Your task to perform on an android device: Is it going to rain today? Image 0: 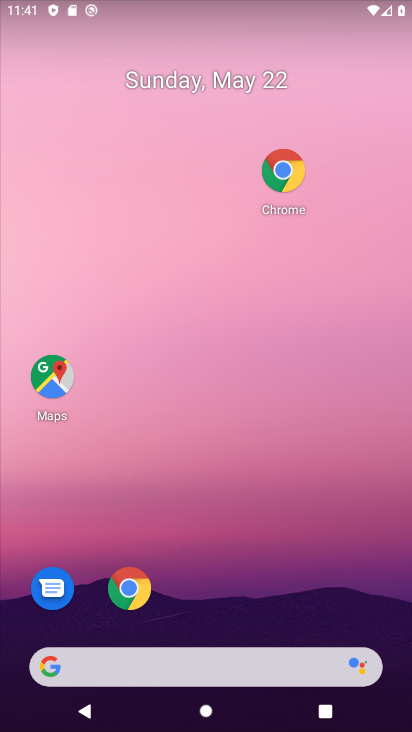
Step 0: drag from (209, 258) to (177, 24)
Your task to perform on an android device: Is it going to rain today? Image 1: 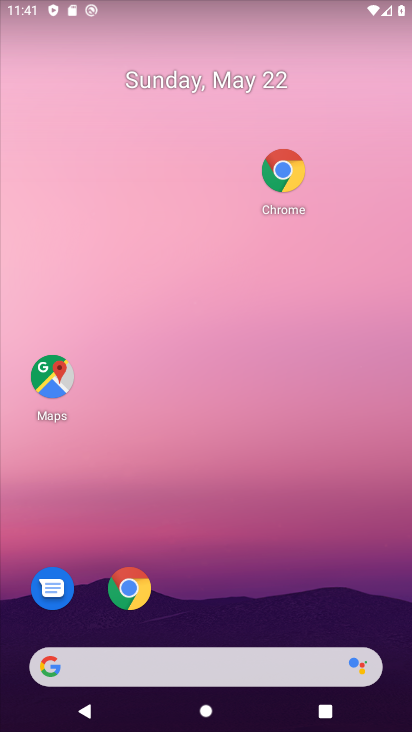
Step 1: drag from (202, 161) to (196, 25)
Your task to perform on an android device: Is it going to rain today? Image 2: 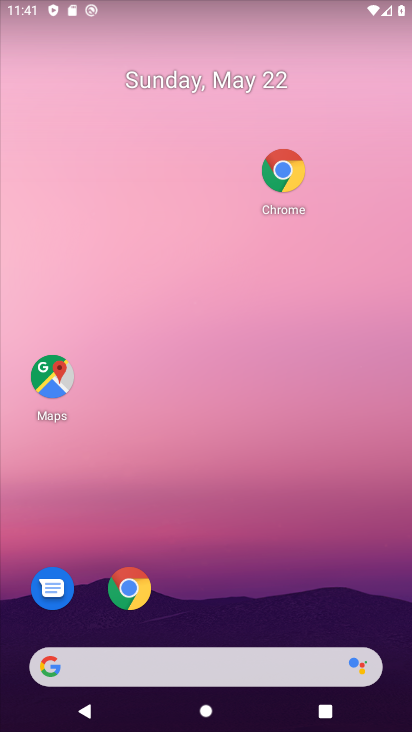
Step 2: drag from (231, 361) to (231, 118)
Your task to perform on an android device: Is it going to rain today? Image 3: 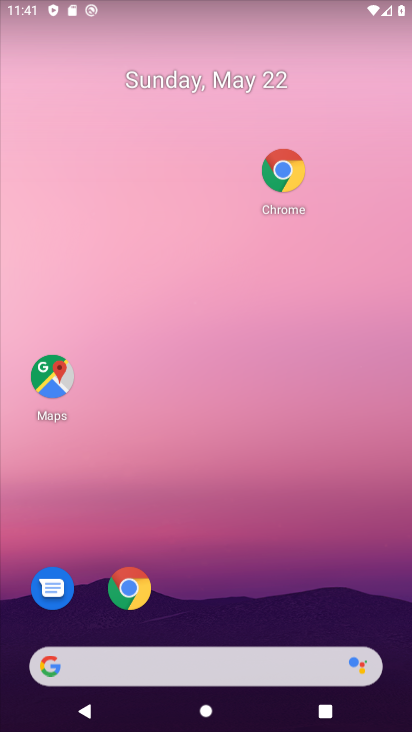
Step 3: drag from (291, 580) to (236, 656)
Your task to perform on an android device: Is it going to rain today? Image 4: 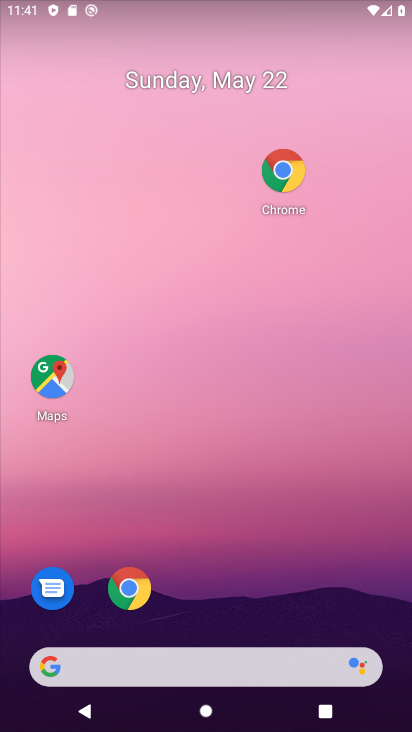
Step 4: drag from (286, 385) to (274, 2)
Your task to perform on an android device: Is it going to rain today? Image 5: 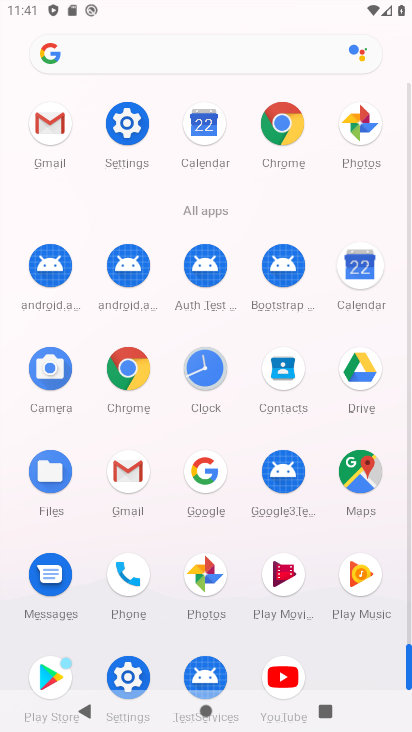
Step 5: press back button
Your task to perform on an android device: Is it going to rain today? Image 6: 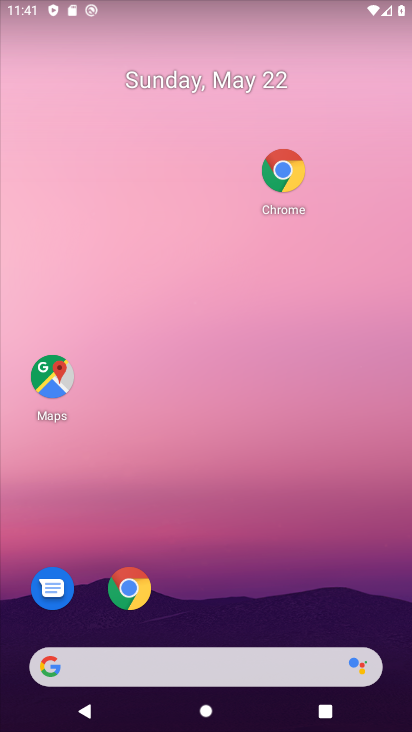
Step 6: drag from (16, 151) to (411, 514)
Your task to perform on an android device: Is it going to rain today? Image 7: 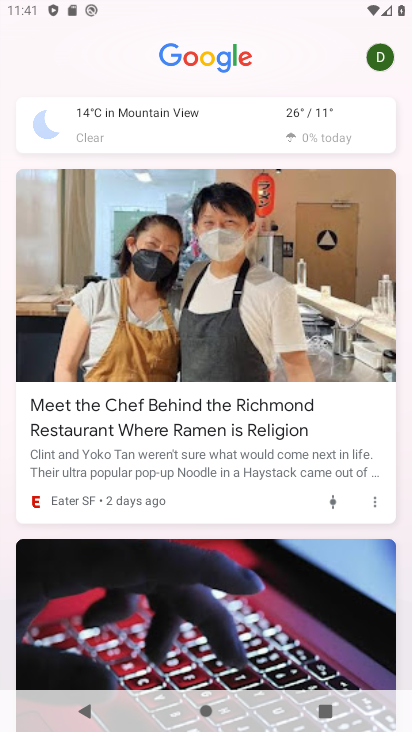
Step 7: click (165, 123)
Your task to perform on an android device: Is it going to rain today? Image 8: 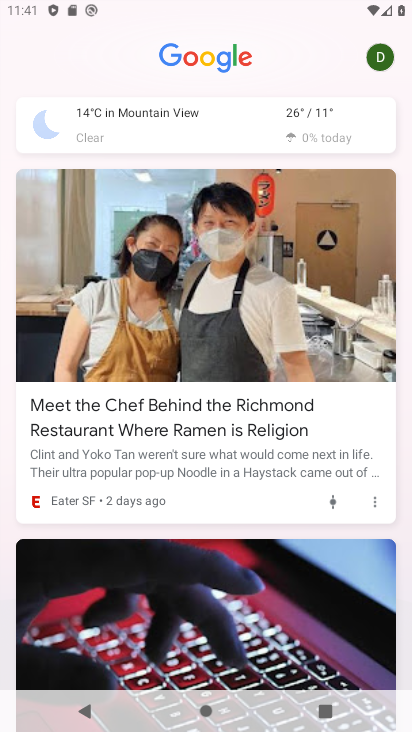
Step 8: click (166, 123)
Your task to perform on an android device: Is it going to rain today? Image 9: 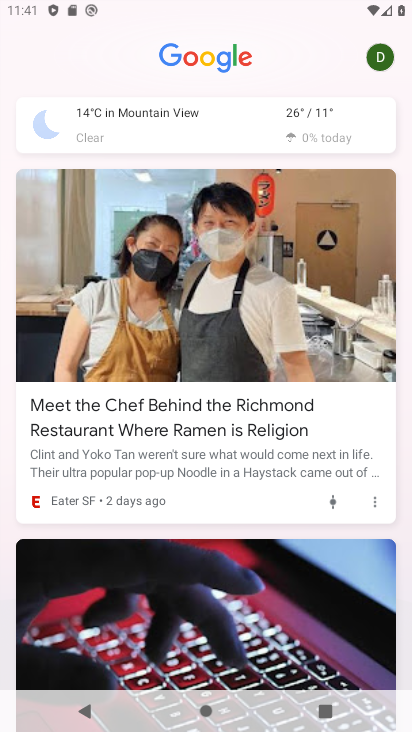
Step 9: click (167, 123)
Your task to perform on an android device: Is it going to rain today? Image 10: 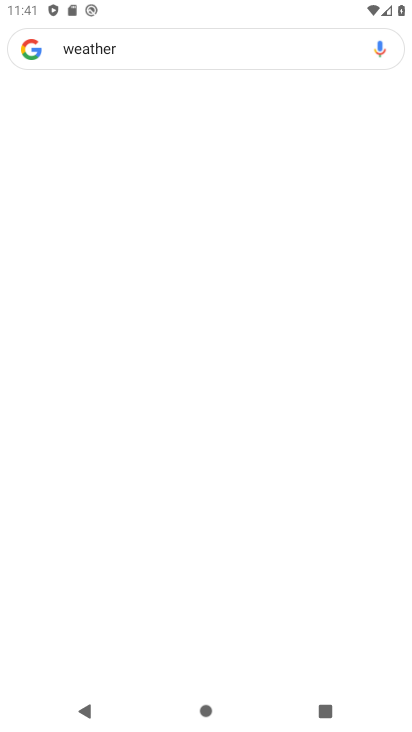
Step 10: click (169, 124)
Your task to perform on an android device: Is it going to rain today? Image 11: 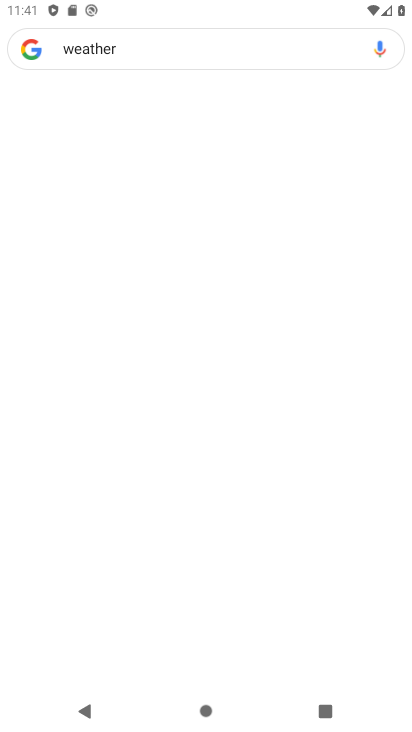
Step 11: click (169, 124)
Your task to perform on an android device: Is it going to rain today? Image 12: 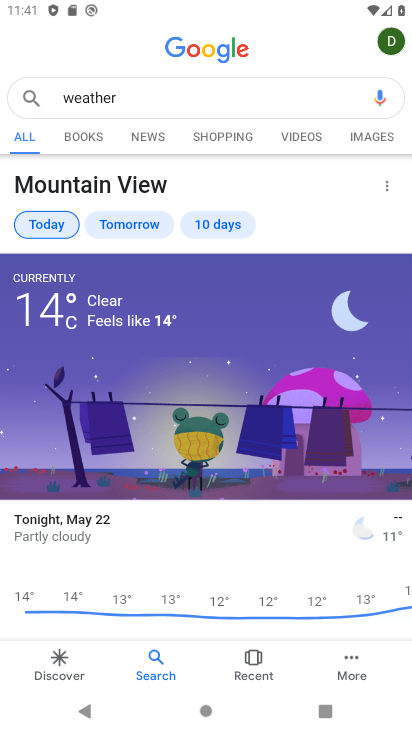
Step 12: click (147, 96)
Your task to perform on an android device: Is it going to rain today? Image 13: 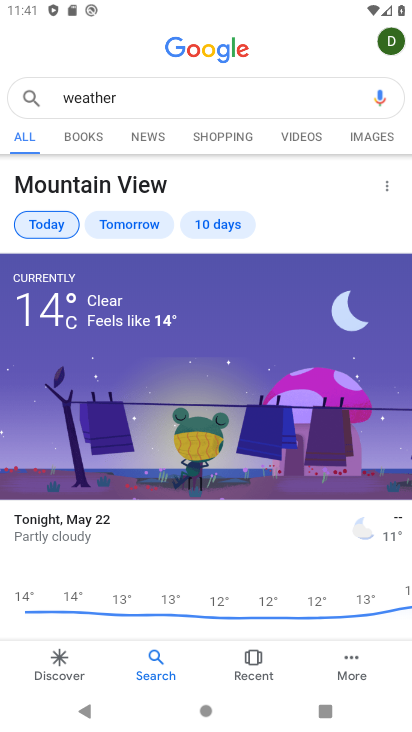
Step 13: click (147, 96)
Your task to perform on an android device: Is it going to rain today? Image 14: 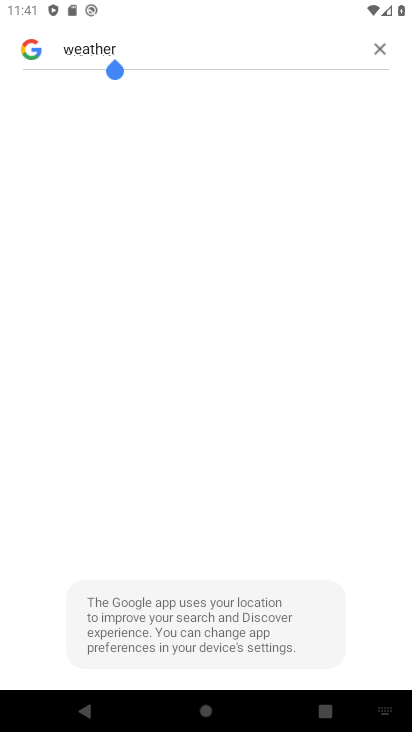
Step 14: click (151, 101)
Your task to perform on an android device: Is it going to rain today? Image 15: 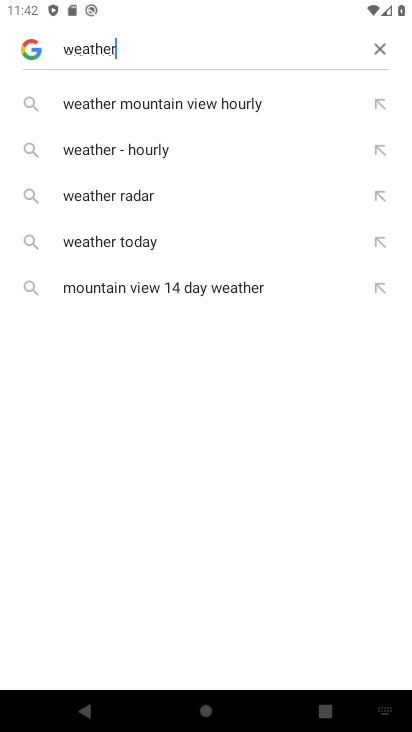
Step 15: click (169, 104)
Your task to perform on an android device: Is it going to rain today? Image 16: 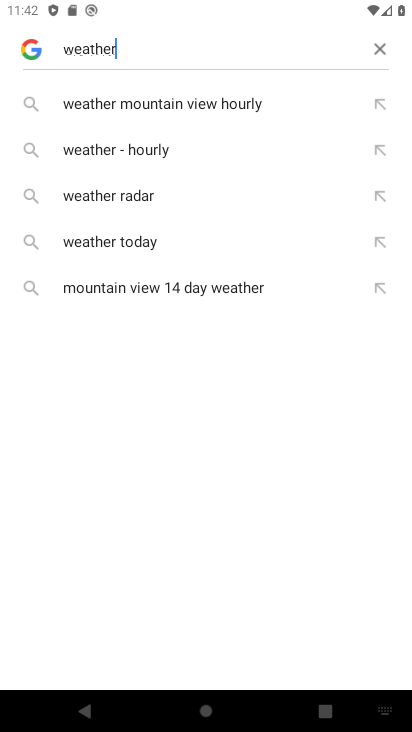
Step 16: click (181, 94)
Your task to perform on an android device: Is it going to rain today? Image 17: 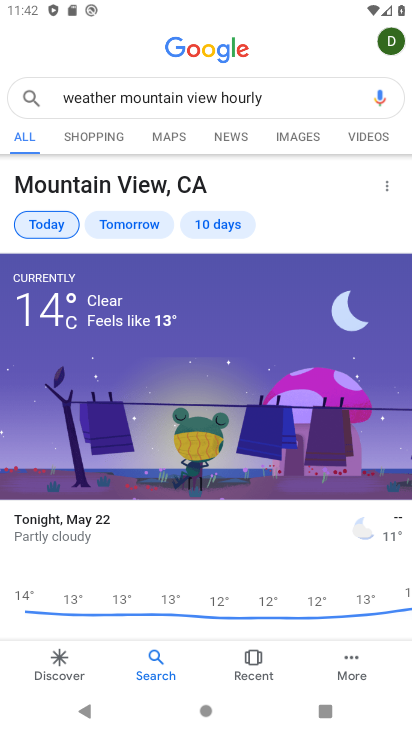
Step 17: click (126, 221)
Your task to perform on an android device: Is it going to rain today? Image 18: 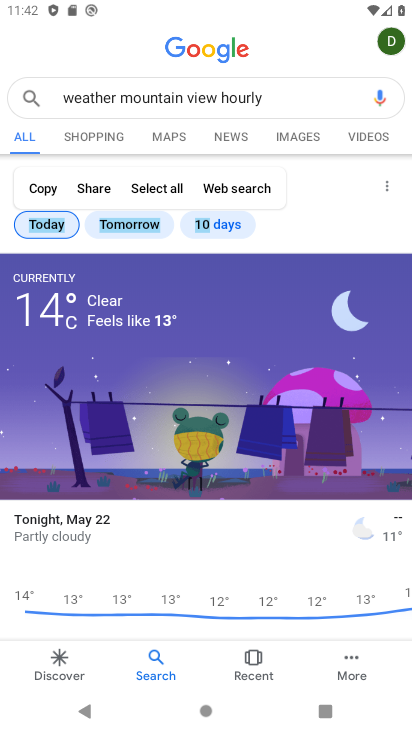
Step 18: click (135, 226)
Your task to perform on an android device: Is it going to rain today? Image 19: 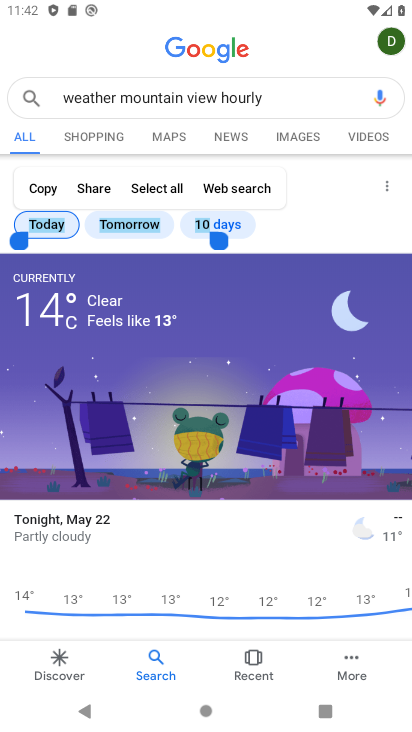
Step 19: click (126, 221)
Your task to perform on an android device: Is it going to rain today? Image 20: 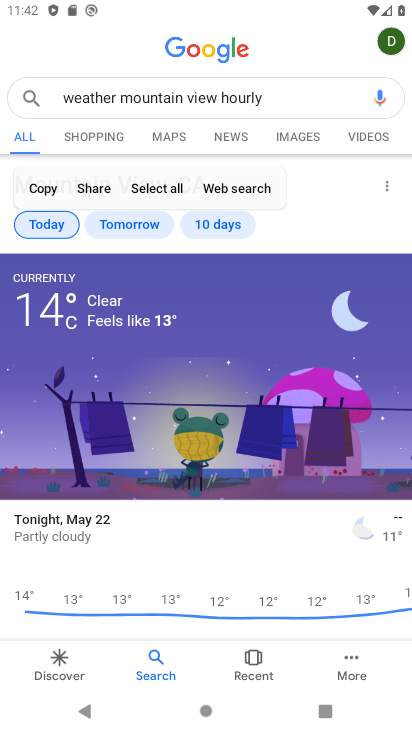
Step 20: click (128, 223)
Your task to perform on an android device: Is it going to rain today? Image 21: 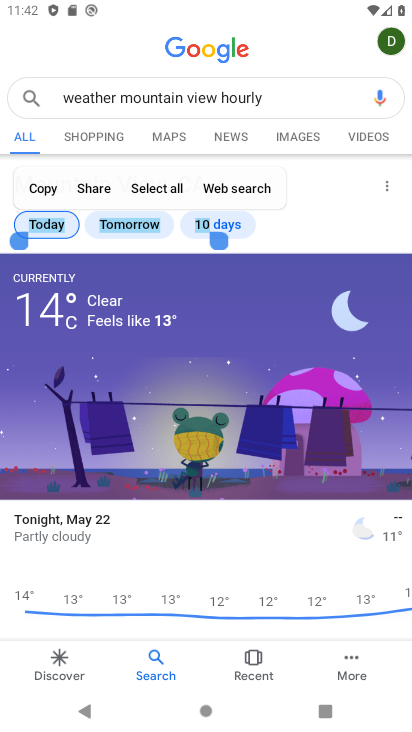
Step 21: click (136, 351)
Your task to perform on an android device: Is it going to rain today? Image 22: 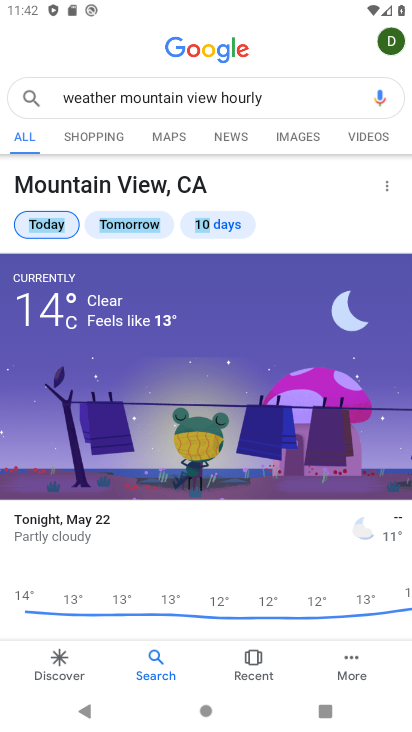
Step 22: drag from (202, 435) to (201, 237)
Your task to perform on an android device: Is it going to rain today? Image 23: 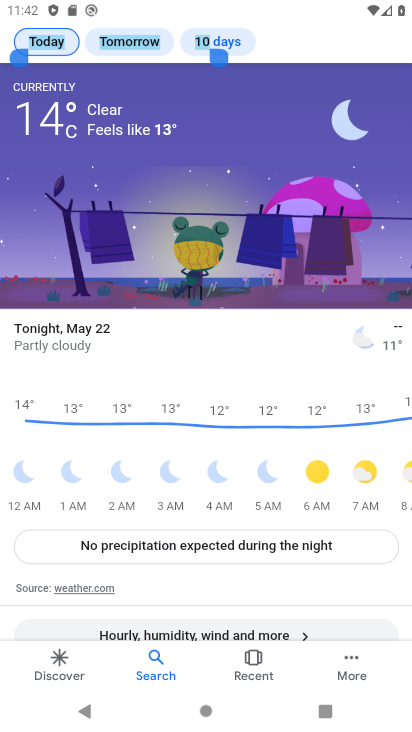
Step 23: click (118, 222)
Your task to perform on an android device: Is it going to rain today? Image 24: 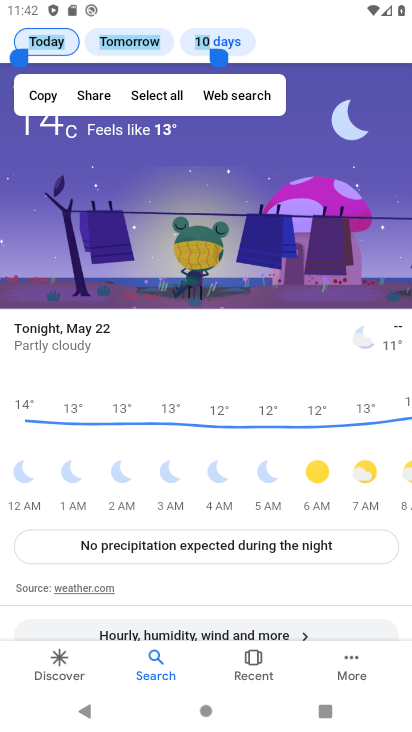
Step 24: task complete